Your task to perform on an android device: Toggle the flashlight Image 0: 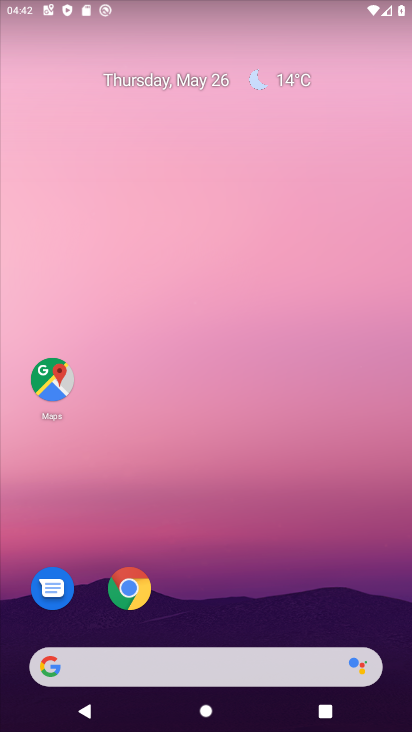
Step 0: drag from (247, 619) to (216, 7)
Your task to perform on an android device: Toggle the flashlight Image 1: 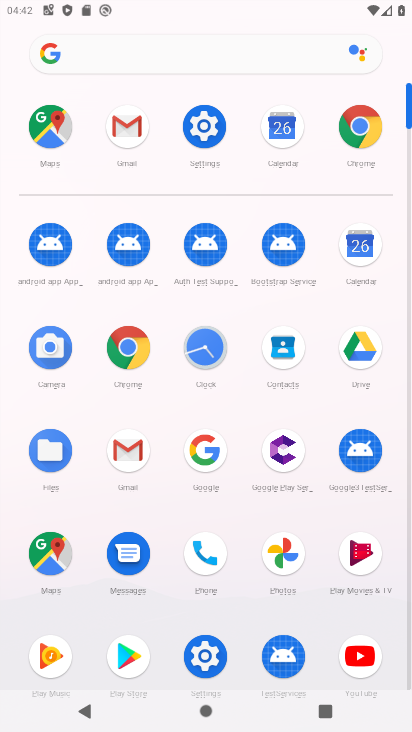
Step 1: click (210, 159)
Your task to perform on an android device: Toggle the flashlight Image 2: 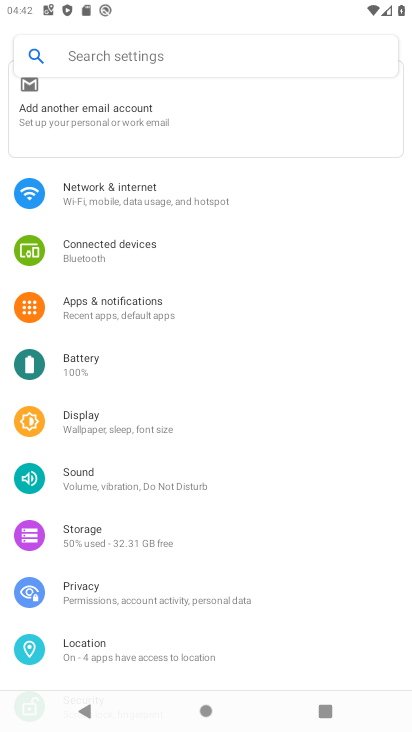
Step 2: click (123, 297)
Your task to perform on an android device: Toggle the flashlight Image 3: 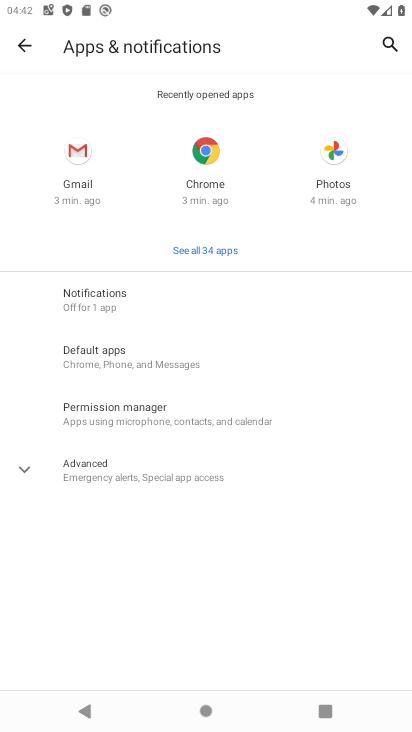
Step 3: task complete